Your task to perform on an android device: Go to internet settings Image 0: 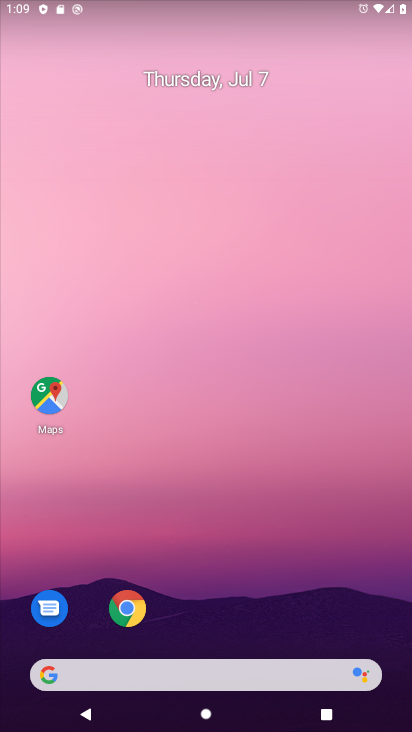
Step 0: drag from (236, 621) to (298, 0)
Your task to perform on an android device: Go to internet settings Image 1: 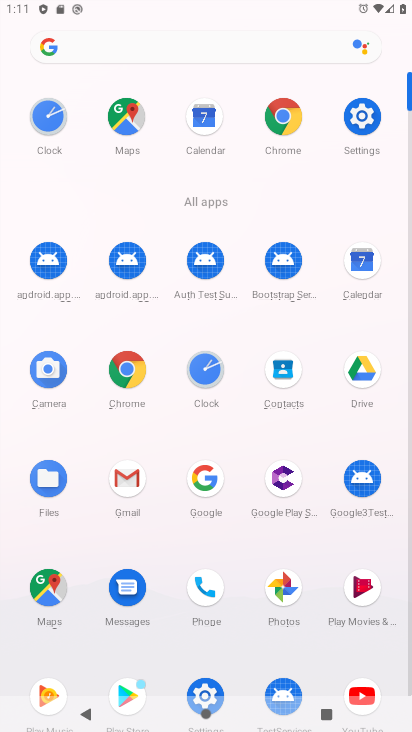
Step 1: click (359, 117)
Your task to perform on an android device: Go to internet settings Image 2: 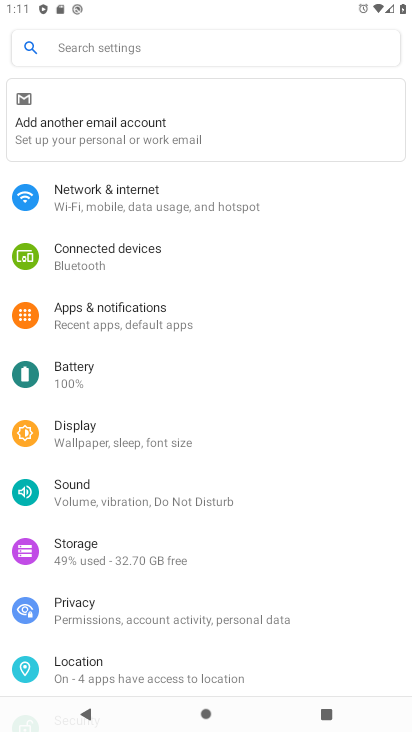
Step 2: click (88, 188)
Your task to perform on an android device: Go to internet settings Image 3: 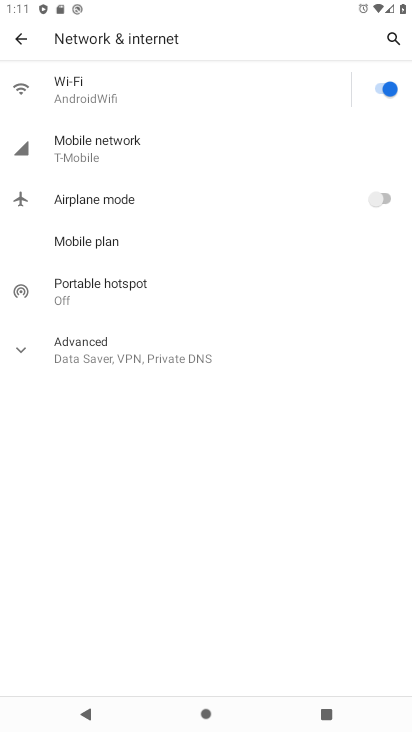
Step 3: task complete